Your task to perform on an android device: Go to settings Image 0: 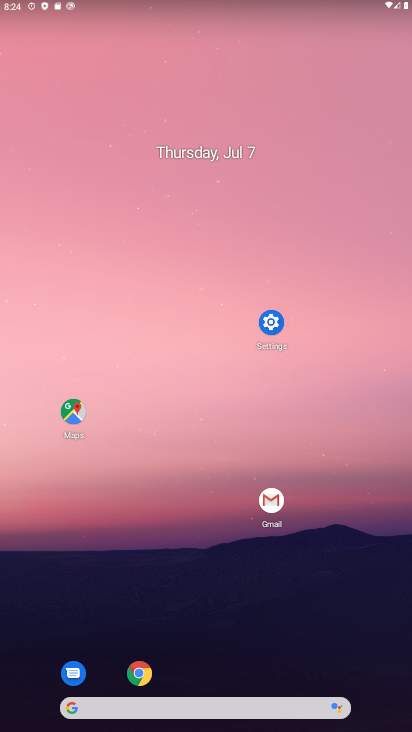
Step 0: click (264, 320)
Your task to perform on an android device: Go to settings Image 1: 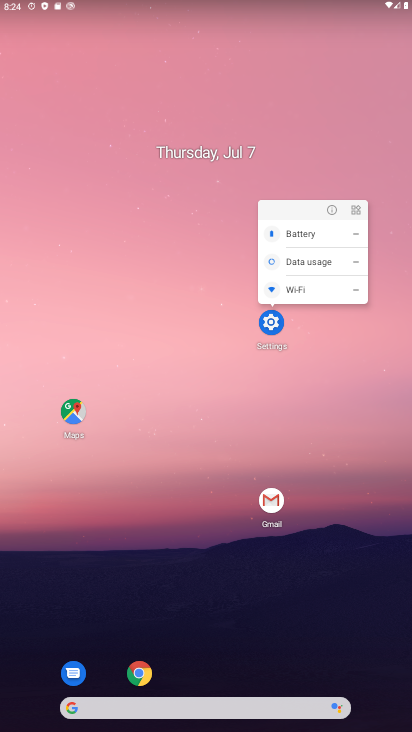
Step 1: click (264, 320)
Your task to perform on an android device: Go to settings Image 2: 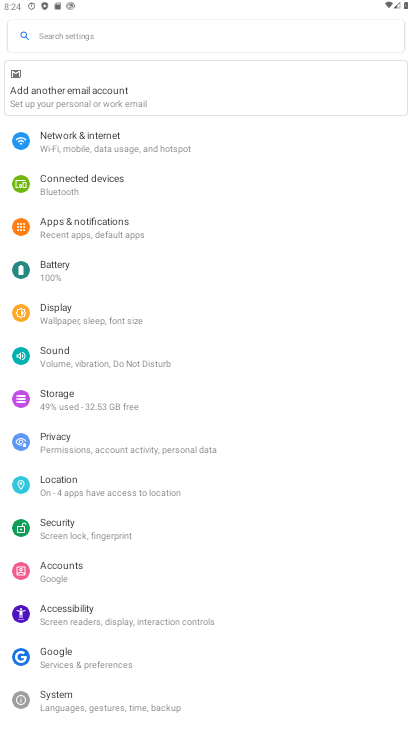
Step 2: task complete